Your task to perform on an android device: Go to Google maps Image 0: 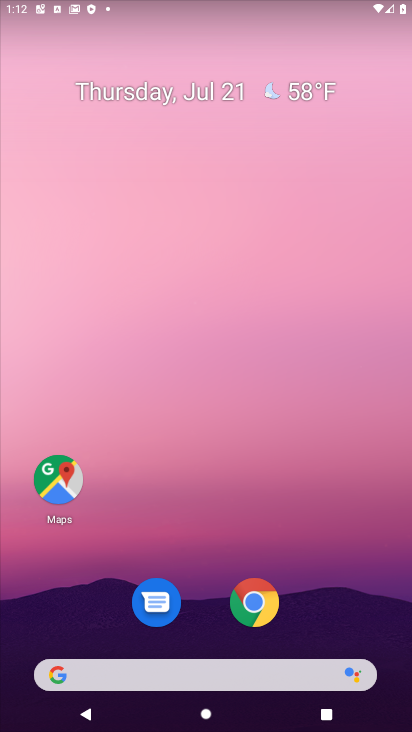
Step 0: drag from (387, 664) to (228, 58)
Your task to perform on an android device: Go to Google maps Image 1: 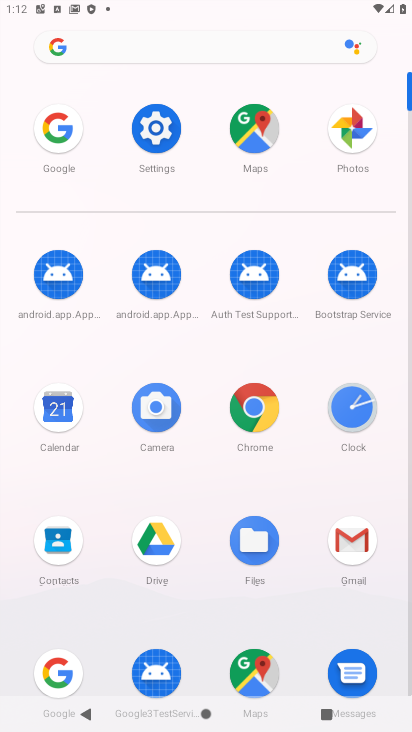
Step 1: click (254, 647)
Your task to perform on an android device: Go to Google maps Image 2: 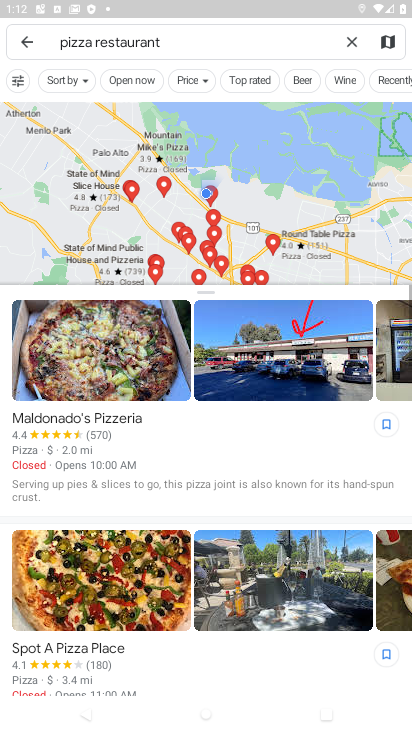
Step 2: click (347, 37)
Your task to perform on an android device: Go to Google maps Image 3: 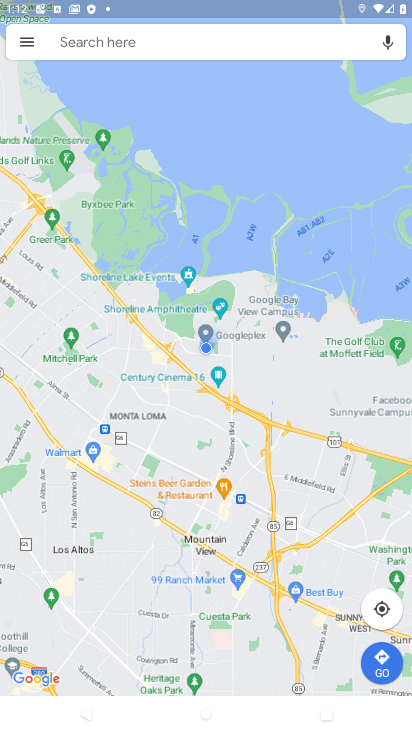
Step 3: task complete